Your task to perform on an android device: turn on showing notifications on the lock screen Image 0: 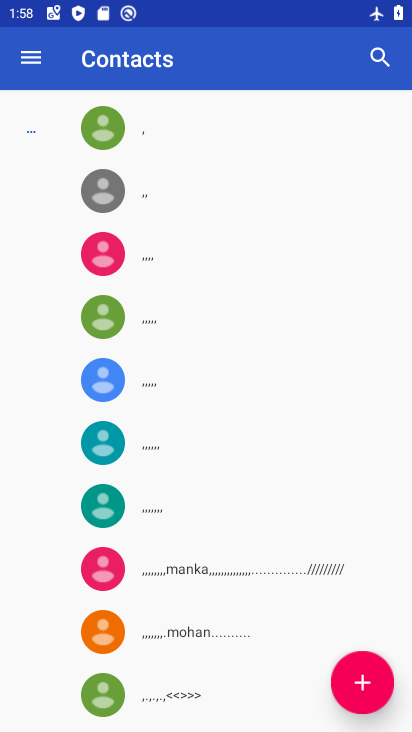
Step 0: press home button
Your task to perform on an android device: turn on showing notifications on the lock screen Image 1: 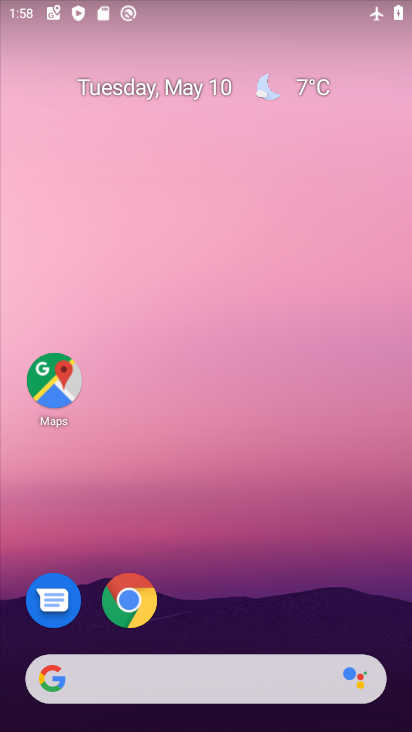
Step 1: drag from (121, 690) to (274, 233)
Your task to perform on an android device: turn on showing notifications on the lock screen Image 2: 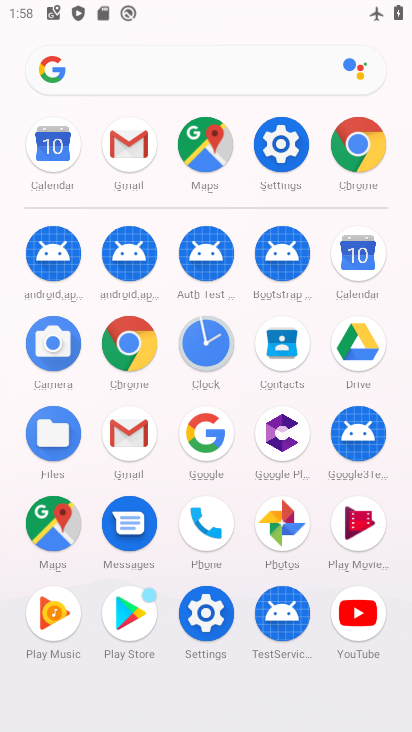
Step 2: click (275, 155)
Your task to perform on an android device: turn on showing notifications on the lock screen Image 3: 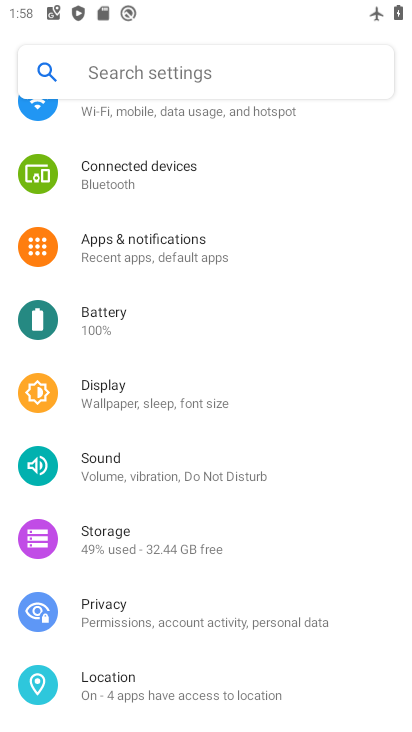
Step 3: click (174, 256)
Your task to perform on an android device: turn on showing notifications on the lock screen Image 4: 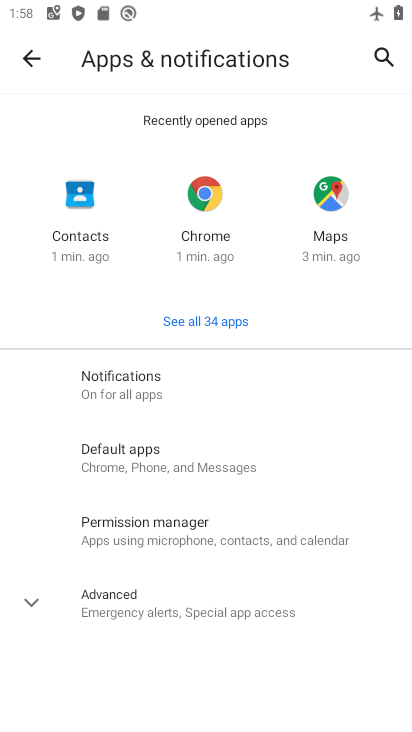
Step 4: click (123, 383)
Your task to perform on an android device: turn on showing notifications on the lock screen Image 5: 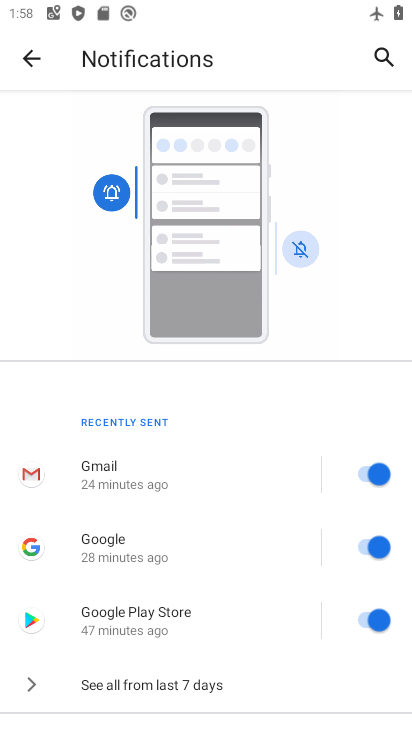
Step 5: drag from (200, 668) to (292, 253)
Your task to perform on an android device: turn on showing notifications on the lock screen Image 6: 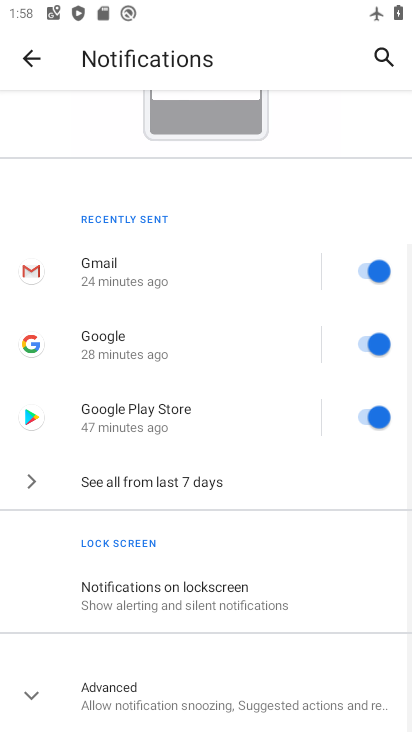
Step 6: click (183, 586)
Your task to perform on an android device: turn on showing notifications on the lock screen Image 7: 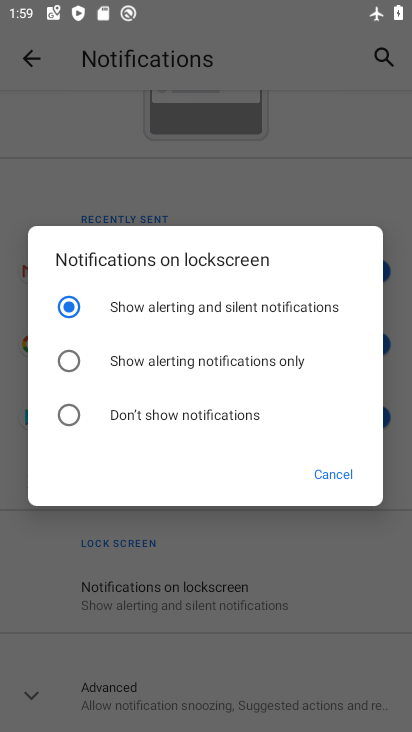
Step 7: task complete